Your task to perform on an android device: set the timer Image 0: 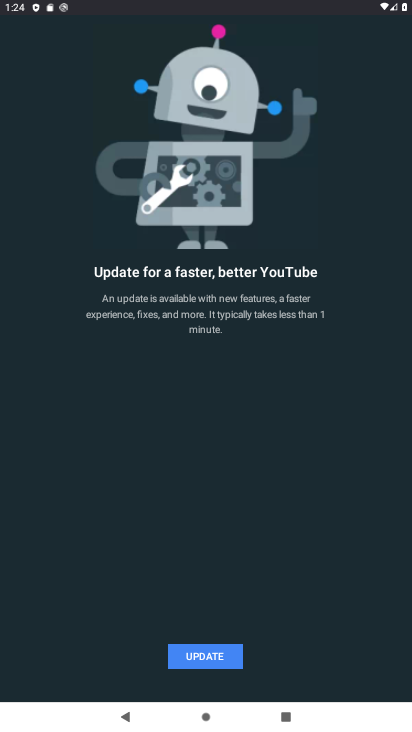
Step 0: press home button
Your task to perform on an android device: set the timer Image 1: 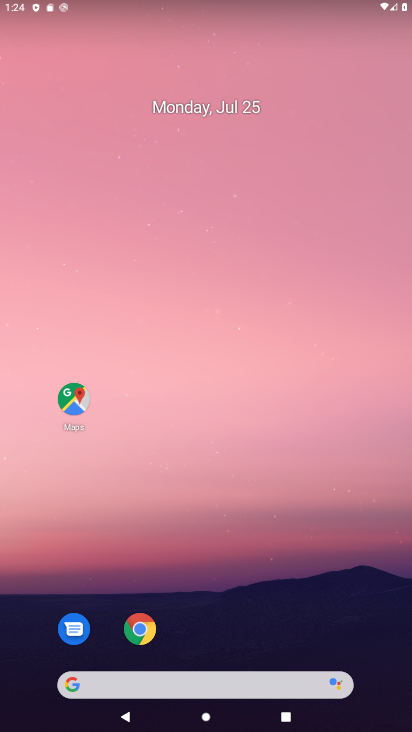
Step 1: click (355, 188)
Your task to perform on an android device: set the timer Image 2: 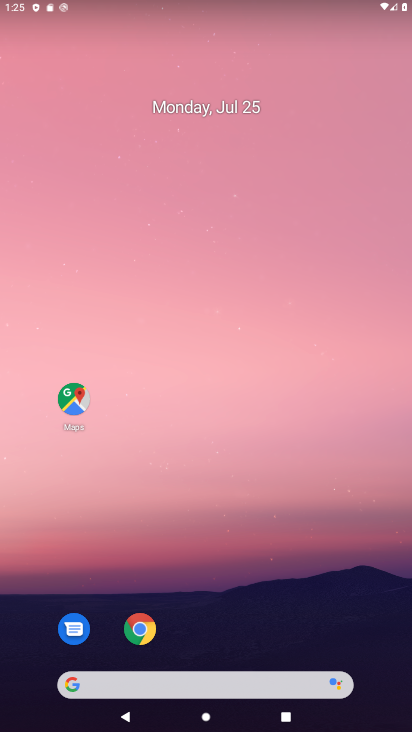
Step 2: drag from (215, 439) to (240, 253)
Your task to perform on an android device: set the timer Image 3: 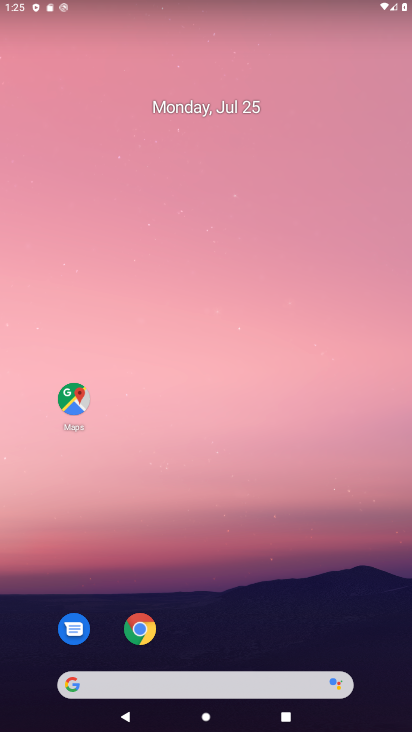
Step 3: drag from (196, 621) to (277, 187)
Your task to perform on an android device: set the timer Image 4: 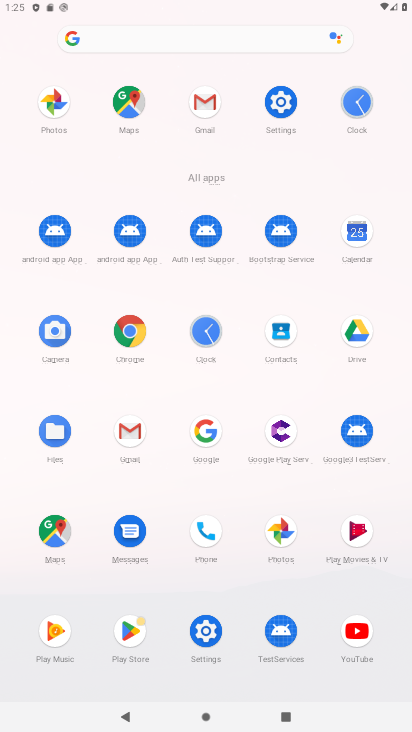
Step 4: click (199, 335)
Your task to perform on an android device: set the timer Image 5: 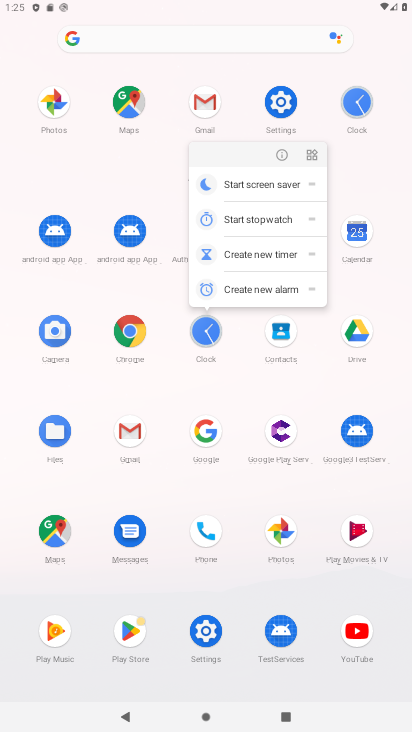
Step 5: click (288, 153)
Your task to perform on an android device: set the timer Image 6: 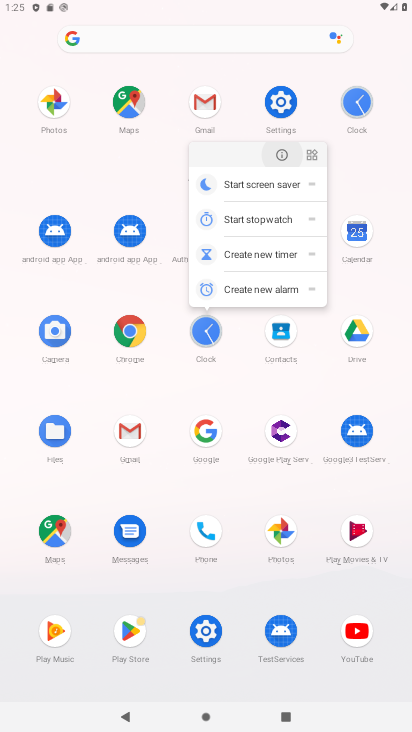
Step 6: click (288, 153)
Your task to perform on an android device: set the timer Image 7: 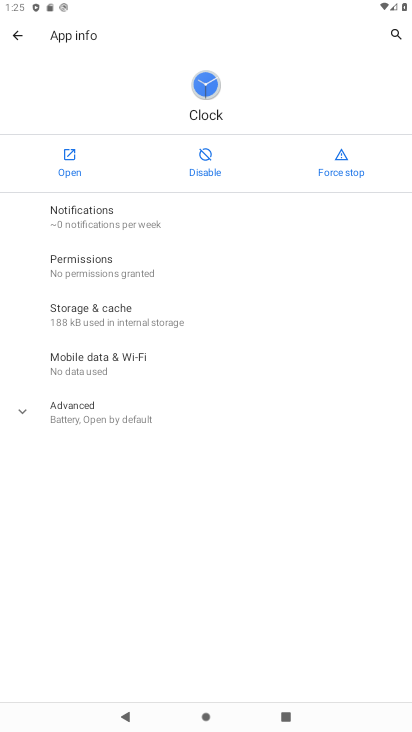
Step 7: click (69, 173)
Your task to perform on an android device: set the timer Image 8: 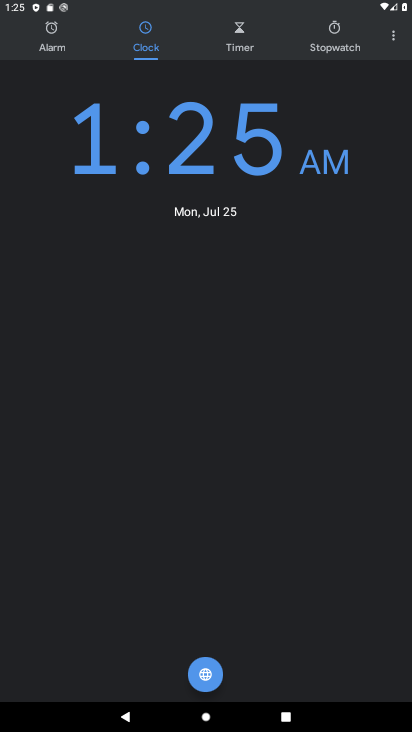
Step 8: drag from (197, 518) to (201, 169)
Your task to perform on an android device: set the timer Image 9: 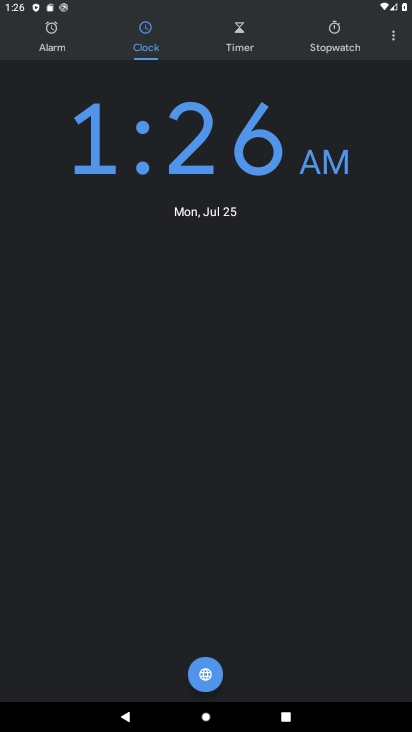
Step 9: click (242, 27)
Your task to perform on an android device: set the timer Image 10: 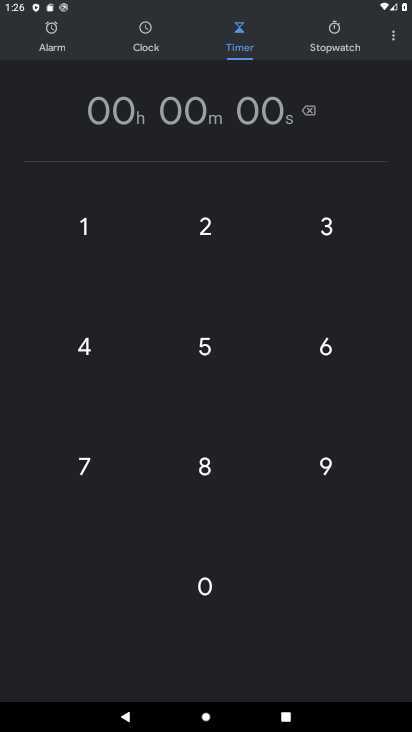
Step 10: click (217, 454)
Your task to perform on an android device: set the timer Image 11: 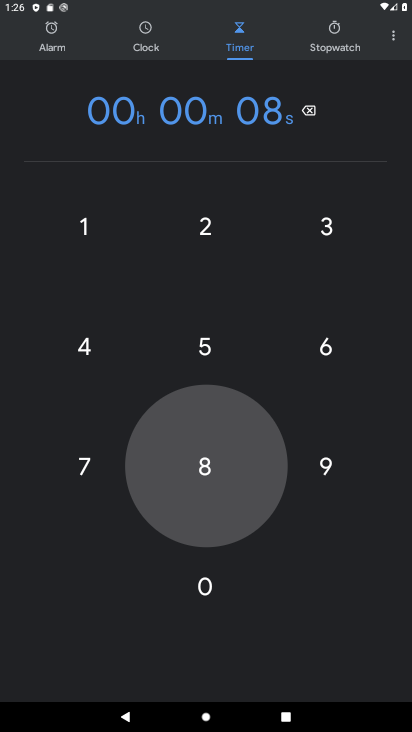
Step 11: click (337, 333)
Your task to perform on an android device: set the timer Image 12: 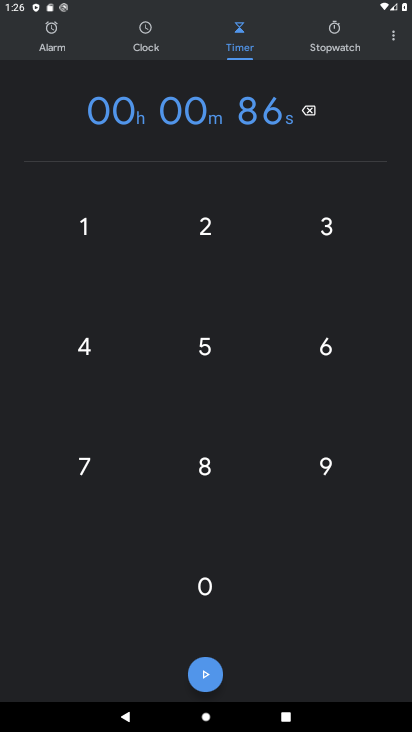
Step 12: click (212, 676)
Your task to perform on an android device: set the timer Image 13: 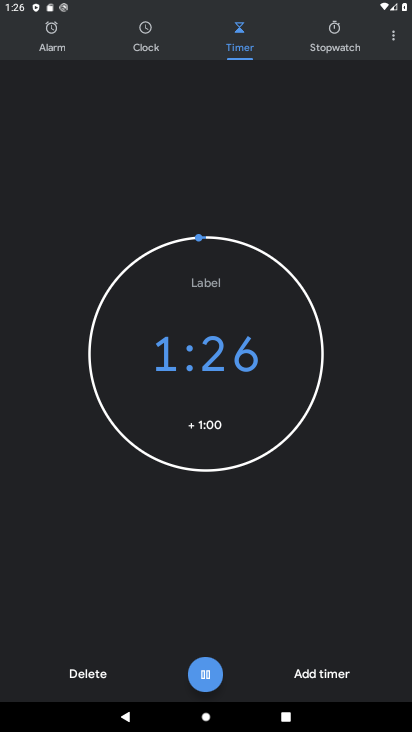
Step 13: task complete